Your task to perform on an android device: turn off airplane mode Image 0: 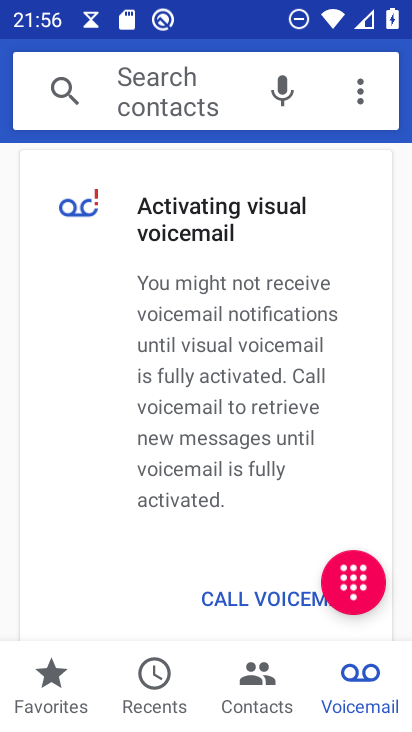
Step 0: press home button
Your task to perform on an android device: turn off airplane mode Image 1: 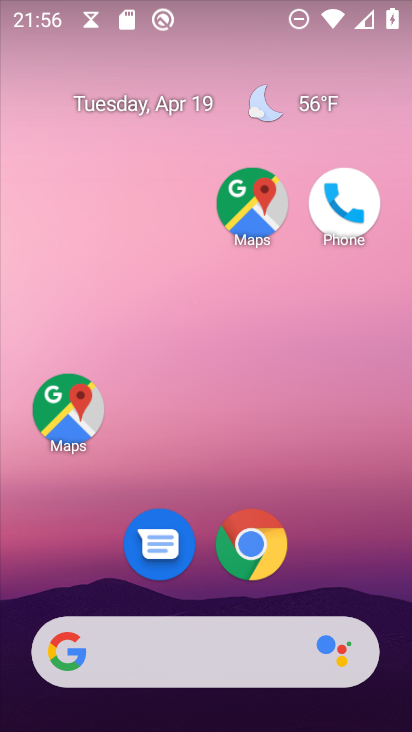
Step 1: drag from (171, 654) to (364, 7)
Your task to perform on an android device: turn off airplane mode Image 2: 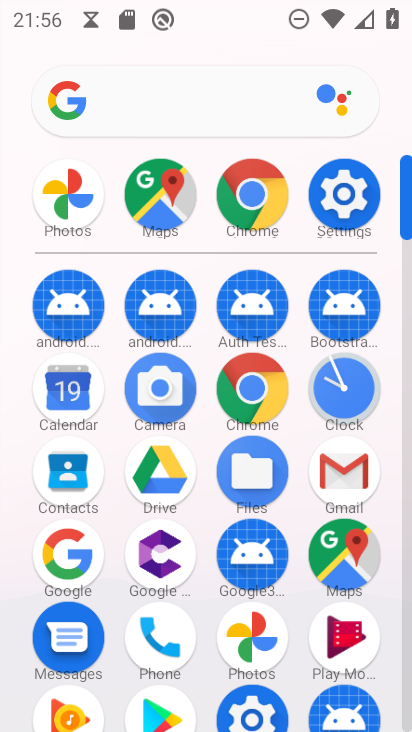
Step 2: click (336, 209)
Your task to perform on an android device: turn off airplane mode Image 3: 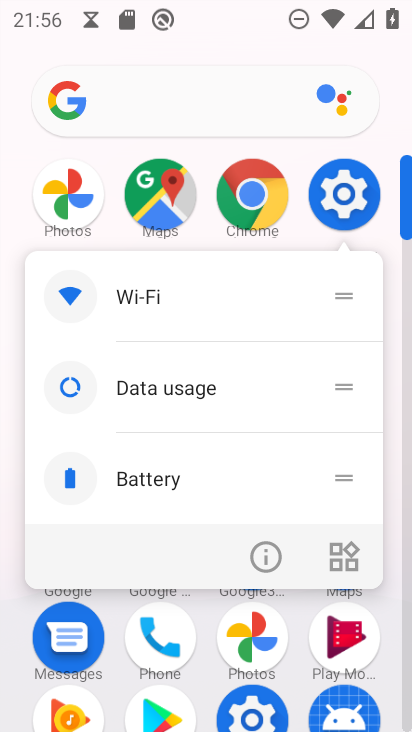
Step 3: click (350, 194)
Your task to perform on an android device: turn off airplane mode Image 4: 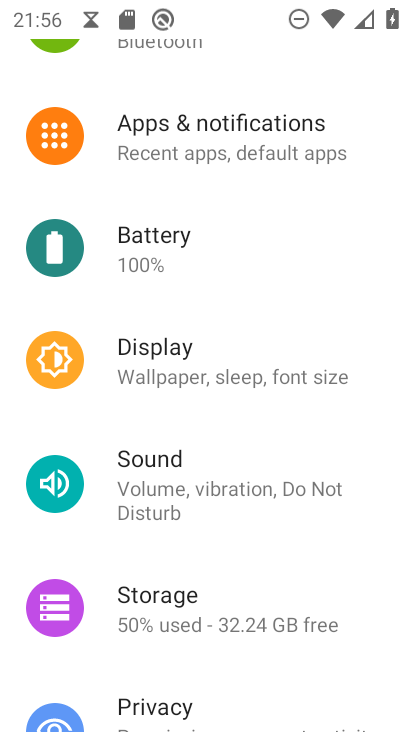
Step 4: drag from (309, 80) to (289, 511)
Your task to perform on an android device: turn off airplane mode Image 5: 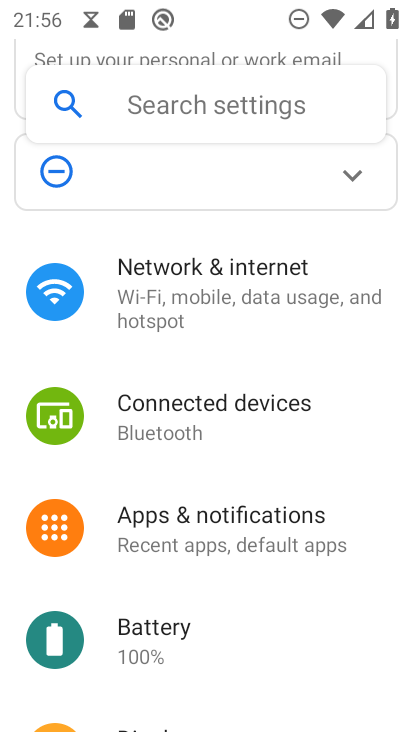
Step 5: click (255, 288)
Your task to perform on an android device: turn off airplane mode Image 6: 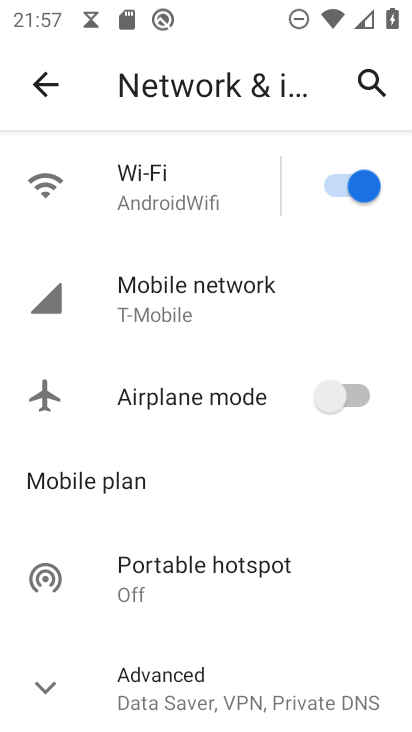
Step 6: task complete